Your task to perform on an android device: Find coffee shops on Maps Image 0: 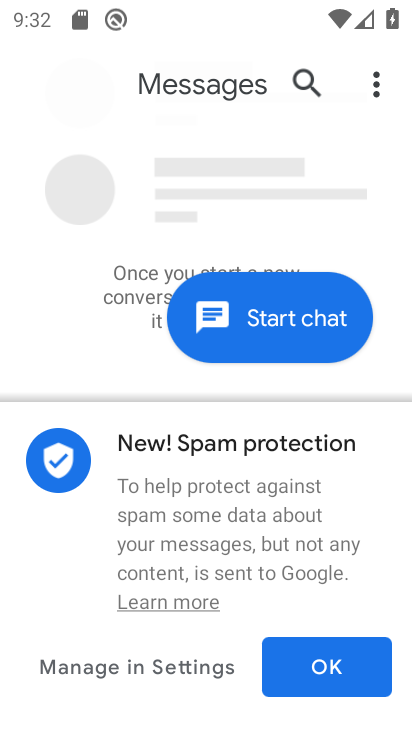
Step 0: press home button
Your task to perform on an android device: Find coffee shops on Maps Image 1: 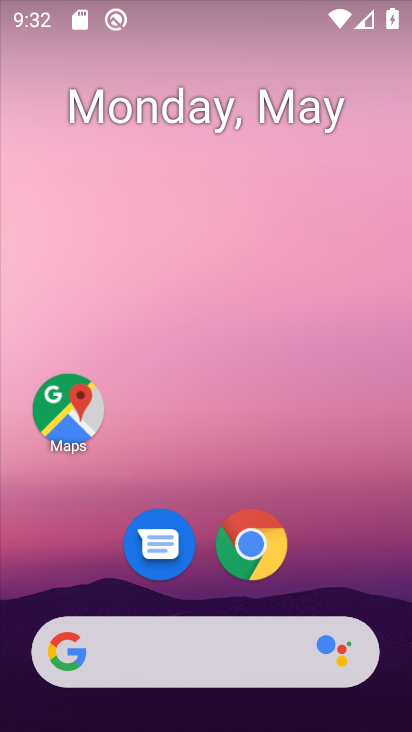
Step 1: drag from (330, 488) to (303, 203)
Your task to perform on an android device: Find coffee shops on Maps Image 2: 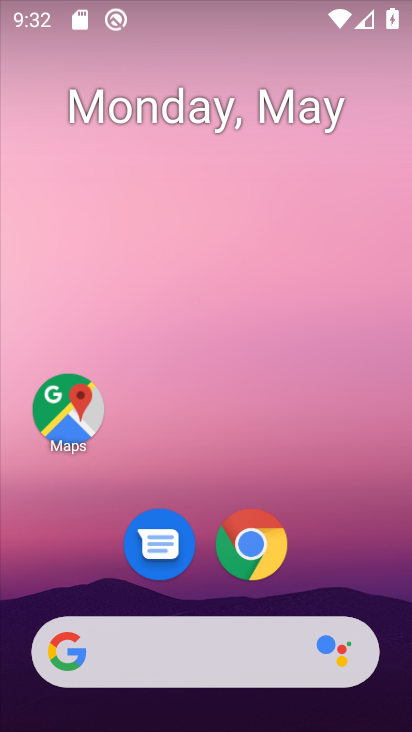
Step 2: click (63, 428)
Your task to perform on an android device: Find coffee shops on Maps Image 3: 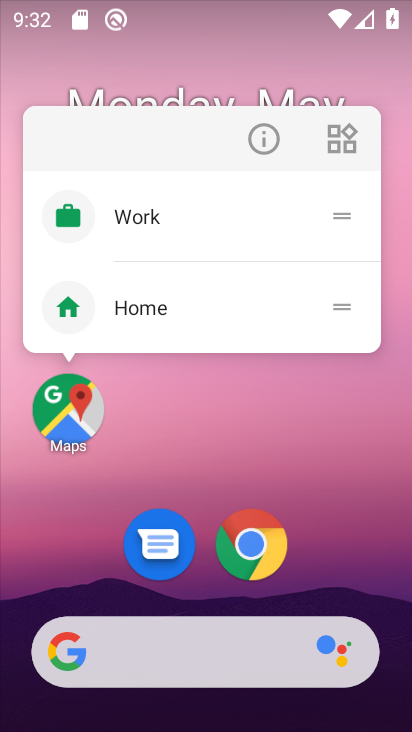
Step 3: click (61, 422)
Your task to perform on an android device: Find coffee shops on Maps Image 4: 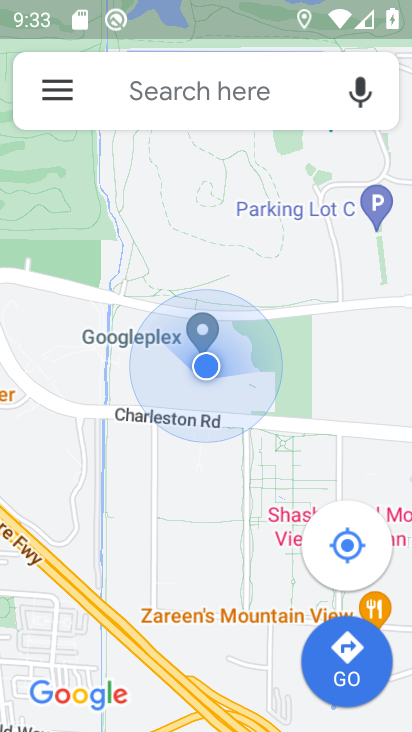
Step 4: click (172, 84)
Your task to perform on an android device: Find coffee shops on Maps Image 5: 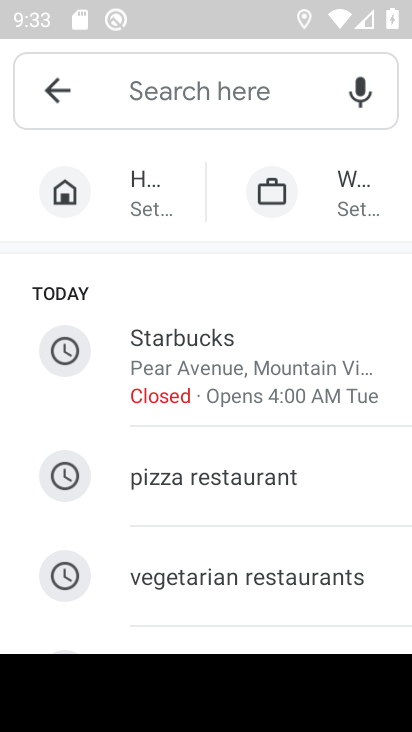
Step 5: type "coffee"
Your task to perform on an android device: Find coffee shops on Maps Image 6: 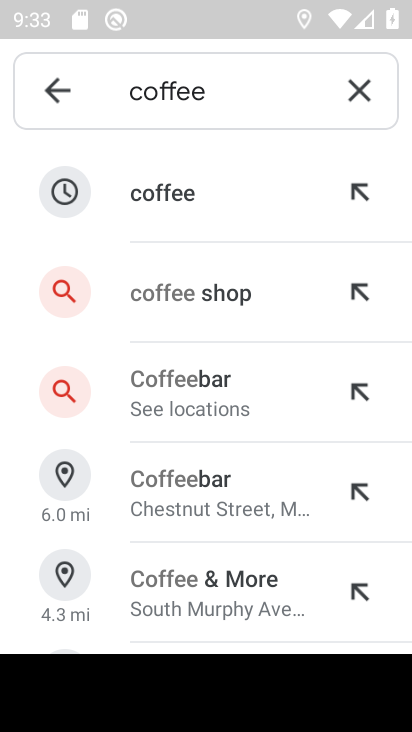
Step 6: click (185, 193)
Your task to perform on an android device: Find coffee shops on Maps Image 7: 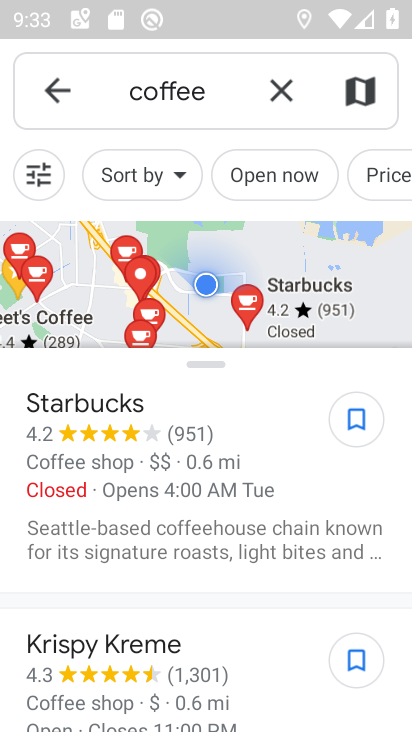
Step 7: task complete